Your task to perform on an android device: Add "lg ultragear" to the cart on amazon.com Image 0: 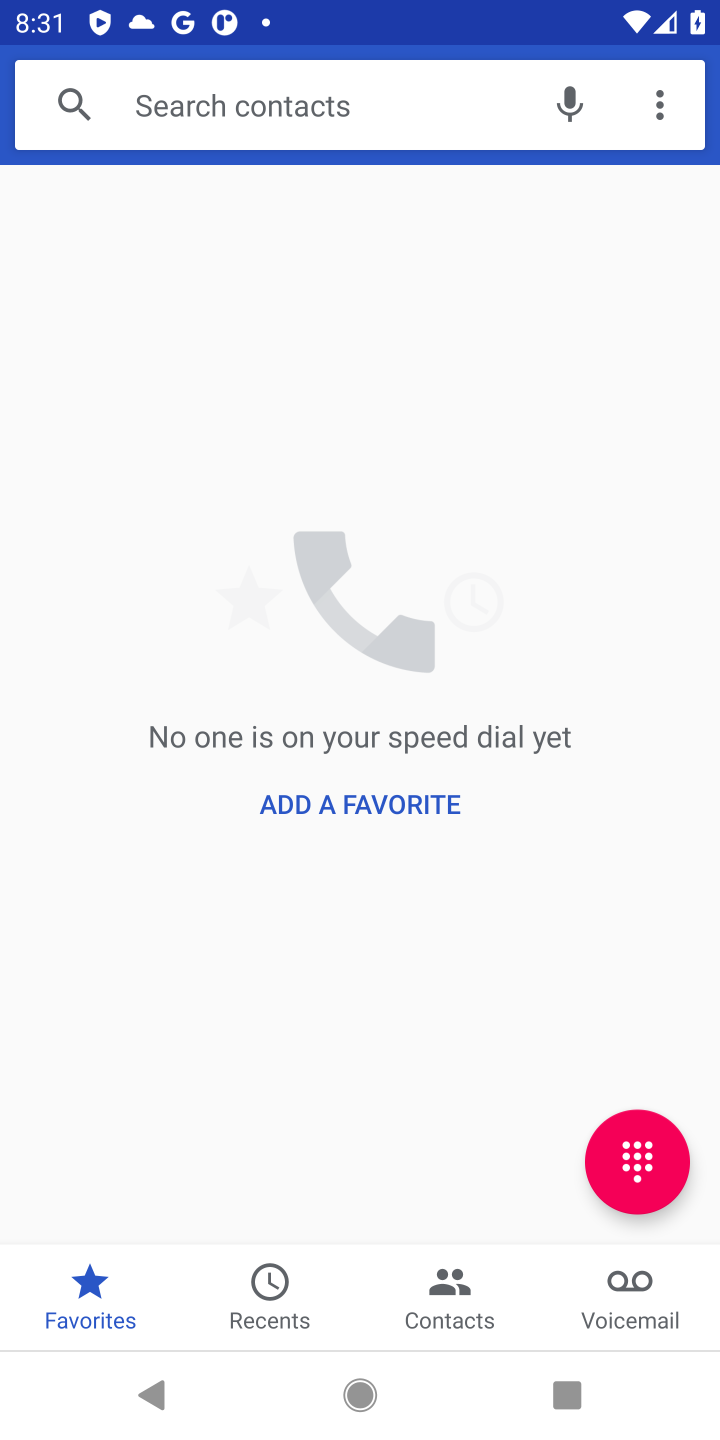
Step 0: press home button
Your task to perform on an android device: Add "lg ultragear" to the cart on amazon.com Image 1: 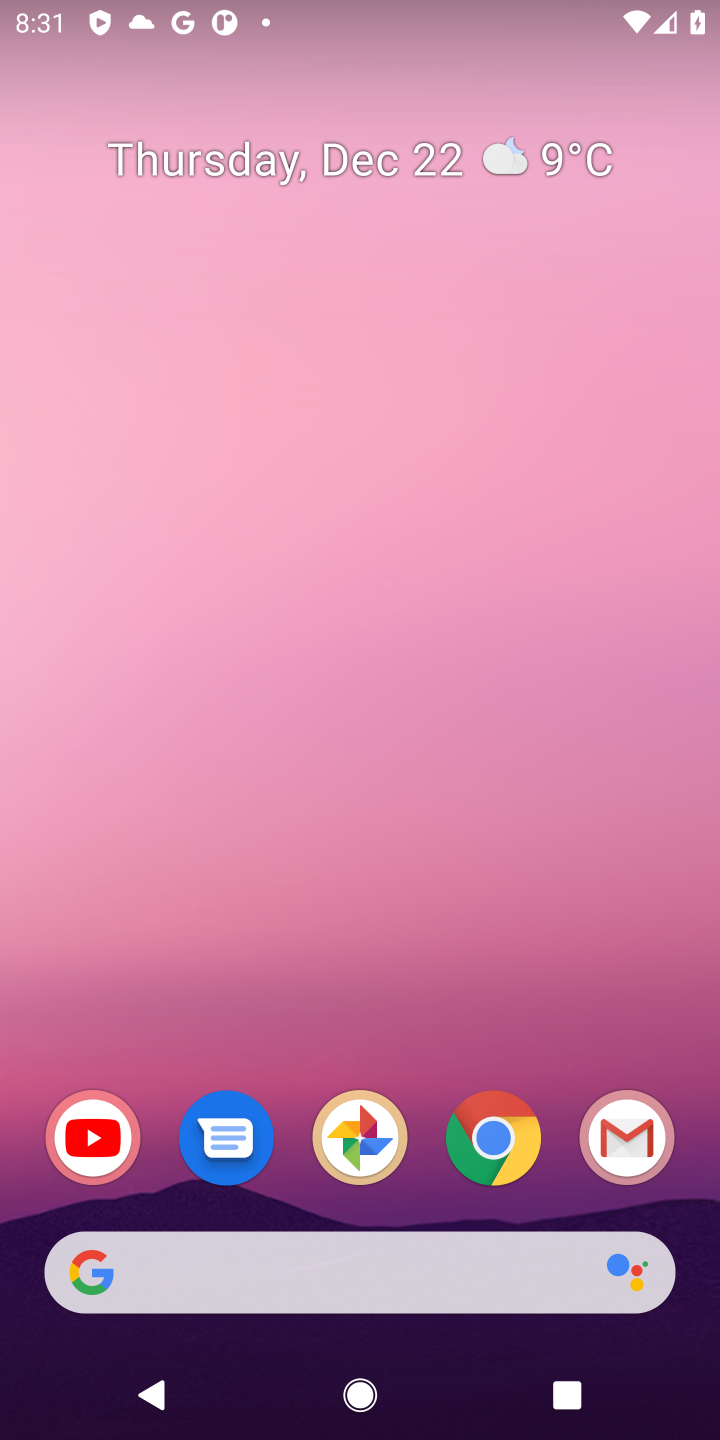
Step 1: click (482, 1160)
Your task to perform on an android device: Add "lg ultragear" to the cart on amazon.com Image 2: 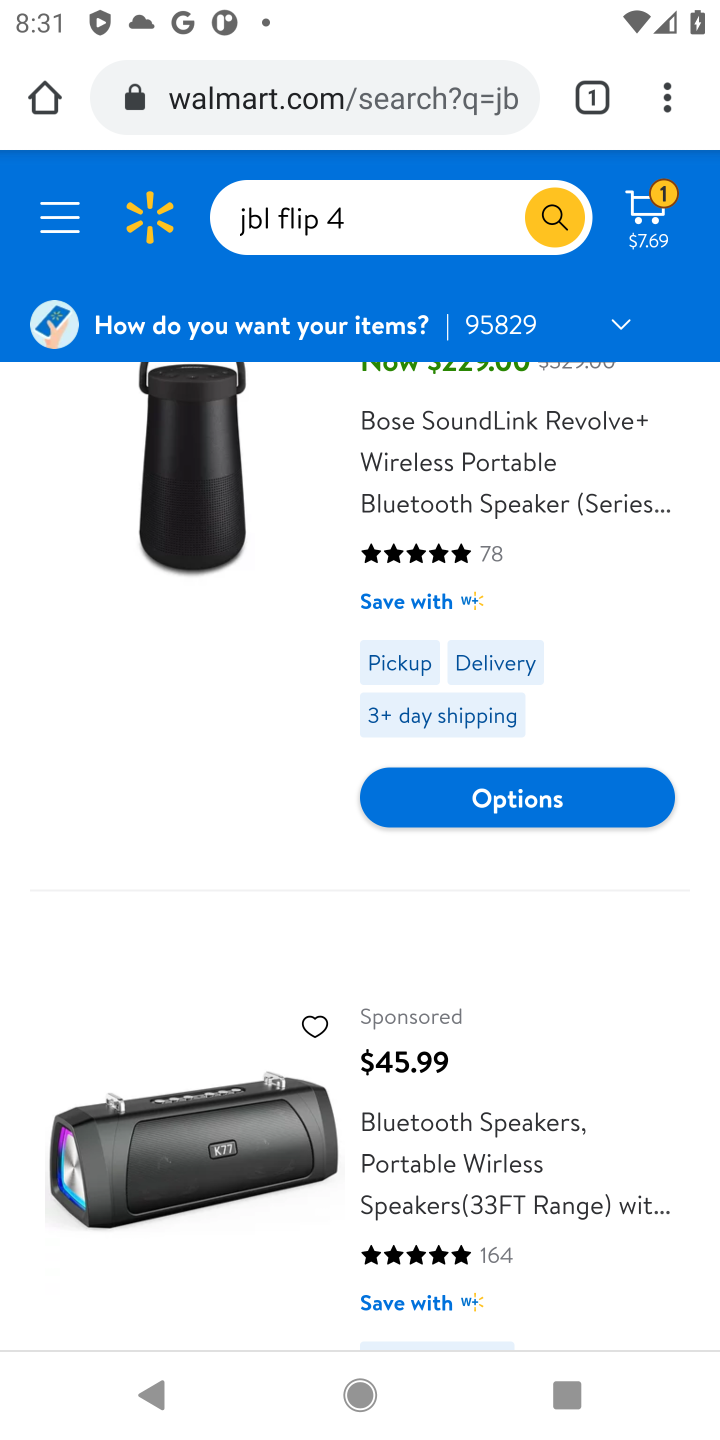
Step 2: click (268, 102)
Your task to perform on an android device: Add "lg ultragear" to the cart on amazon.com Image 3: 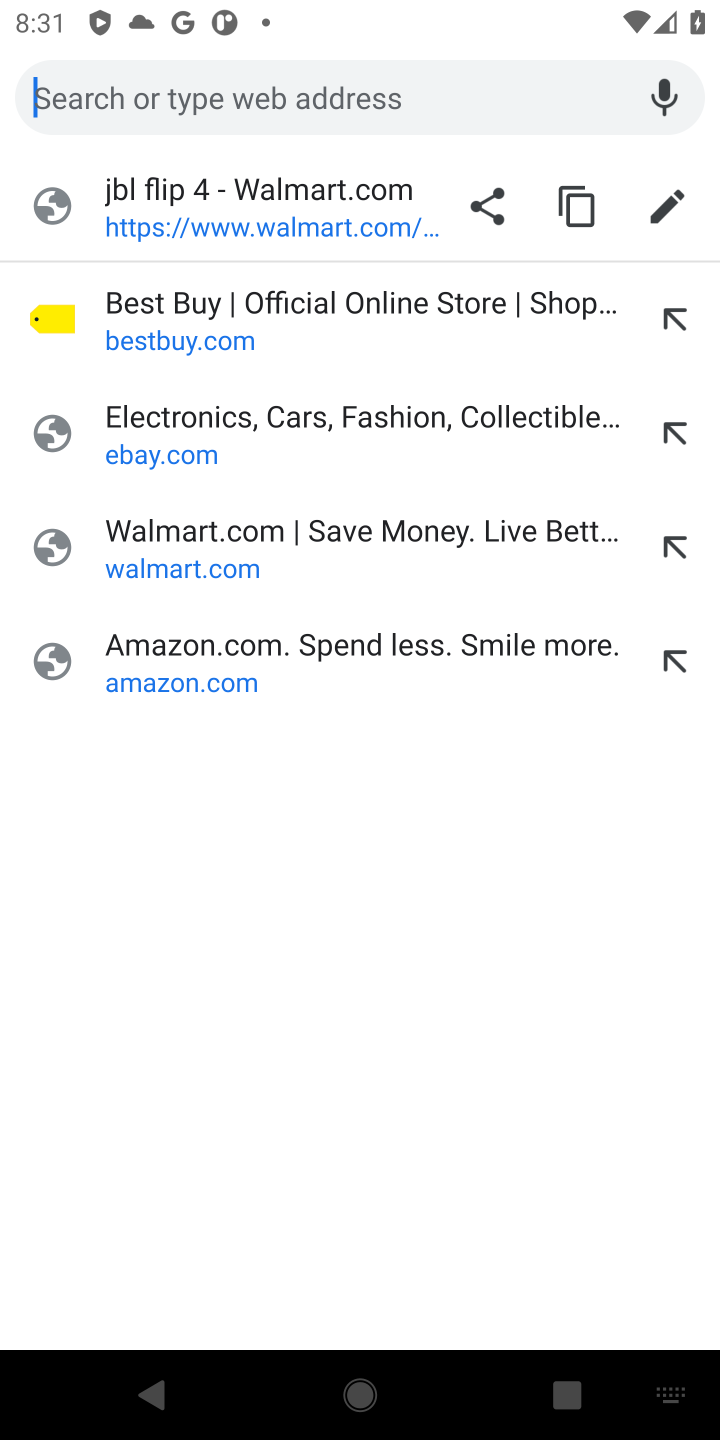
Step 3: type "amazon.com"
Your task to perform on an android device: Add "lg ultragear" to the cart on amazon.com Image 4: 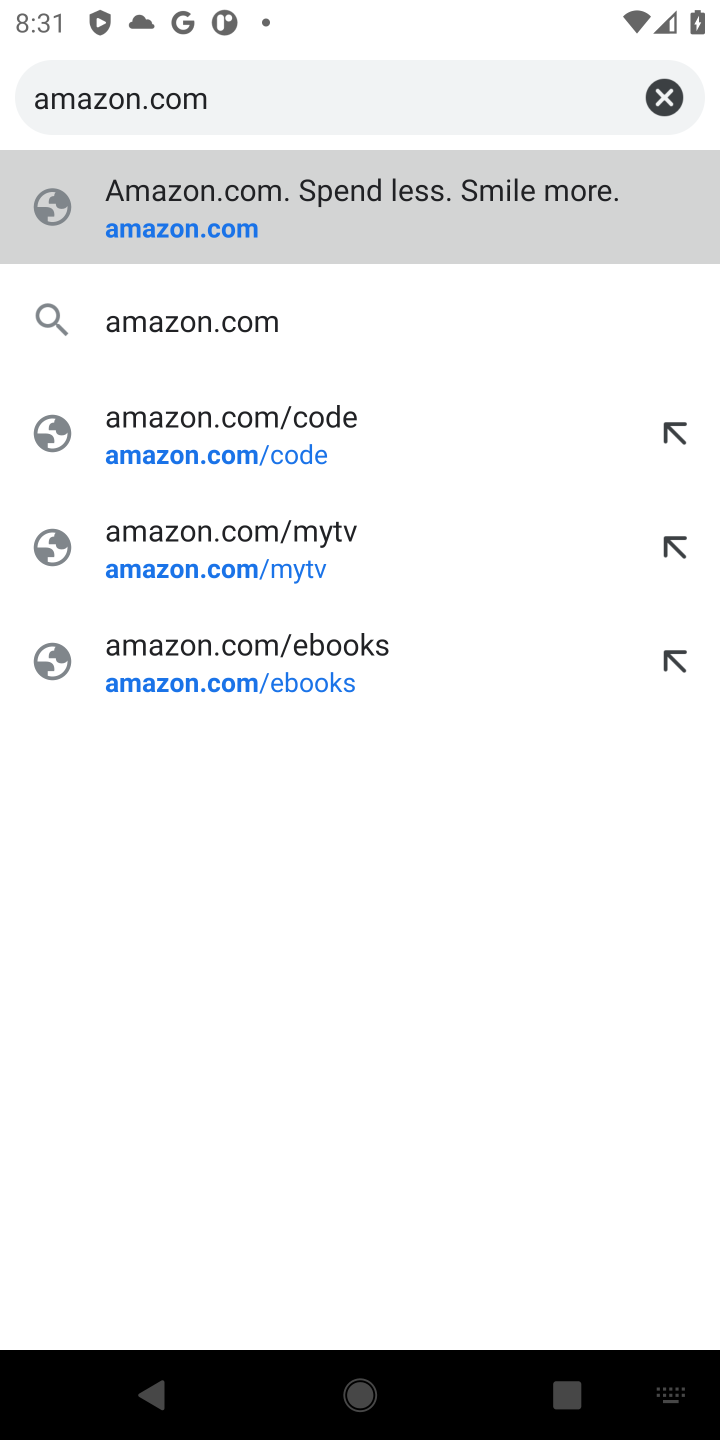
Step 4: press enter
Your task to perform on an android device: Add "lg ultragear" to the cart on amazon.com Image 5: 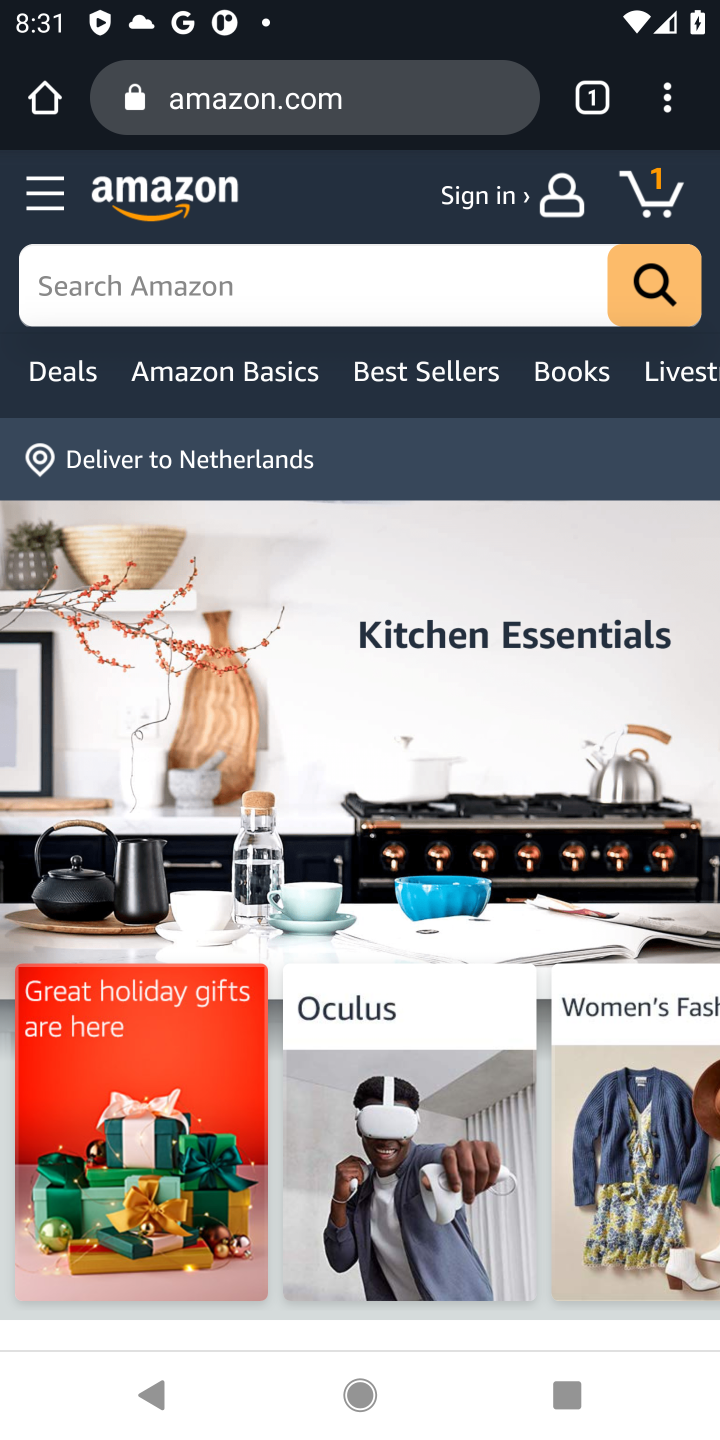
Step 5: click (654, 181)
Your task to perform on an android device: Add "lg ultragear" to the cart on amazon.com Image 6: 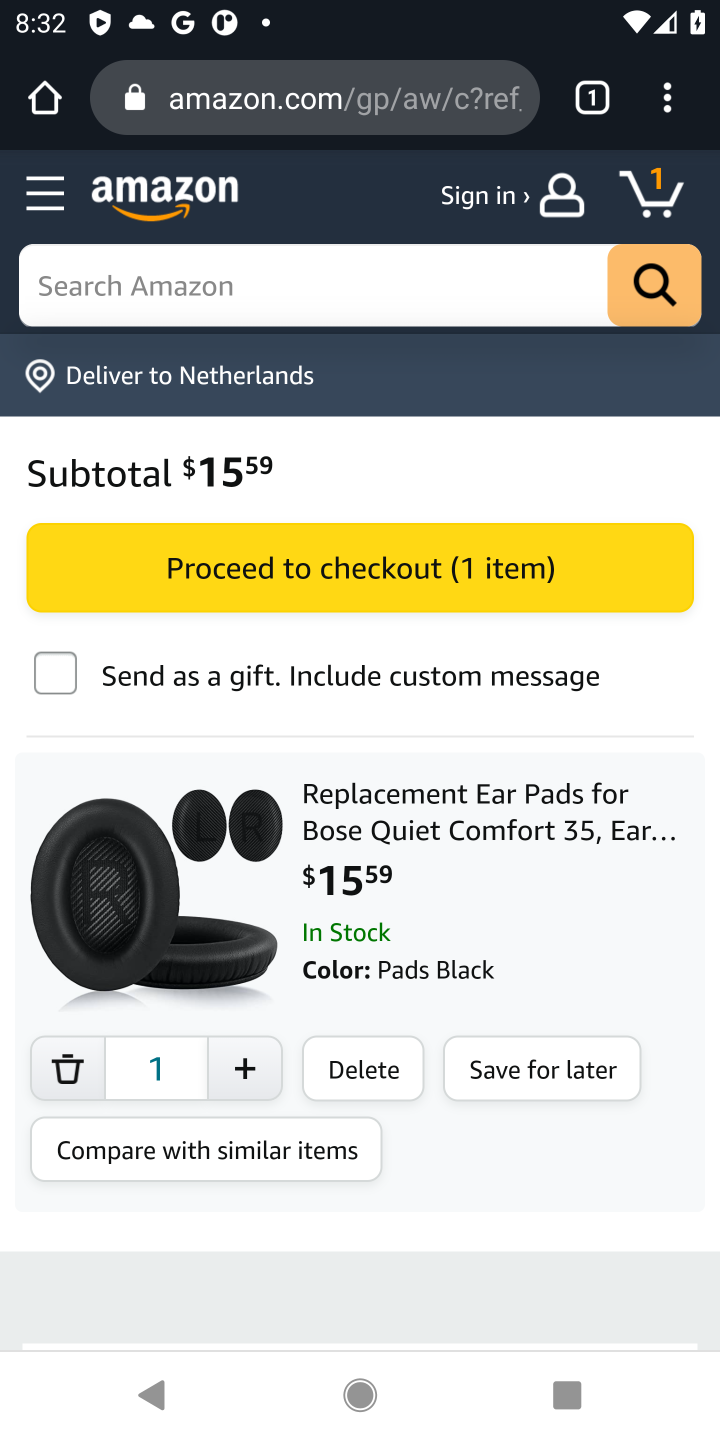
Step 6: click (210, 281)
Your task to perform on an android device: Add "lg ultragear" to the cart on amazon.com Image 7: 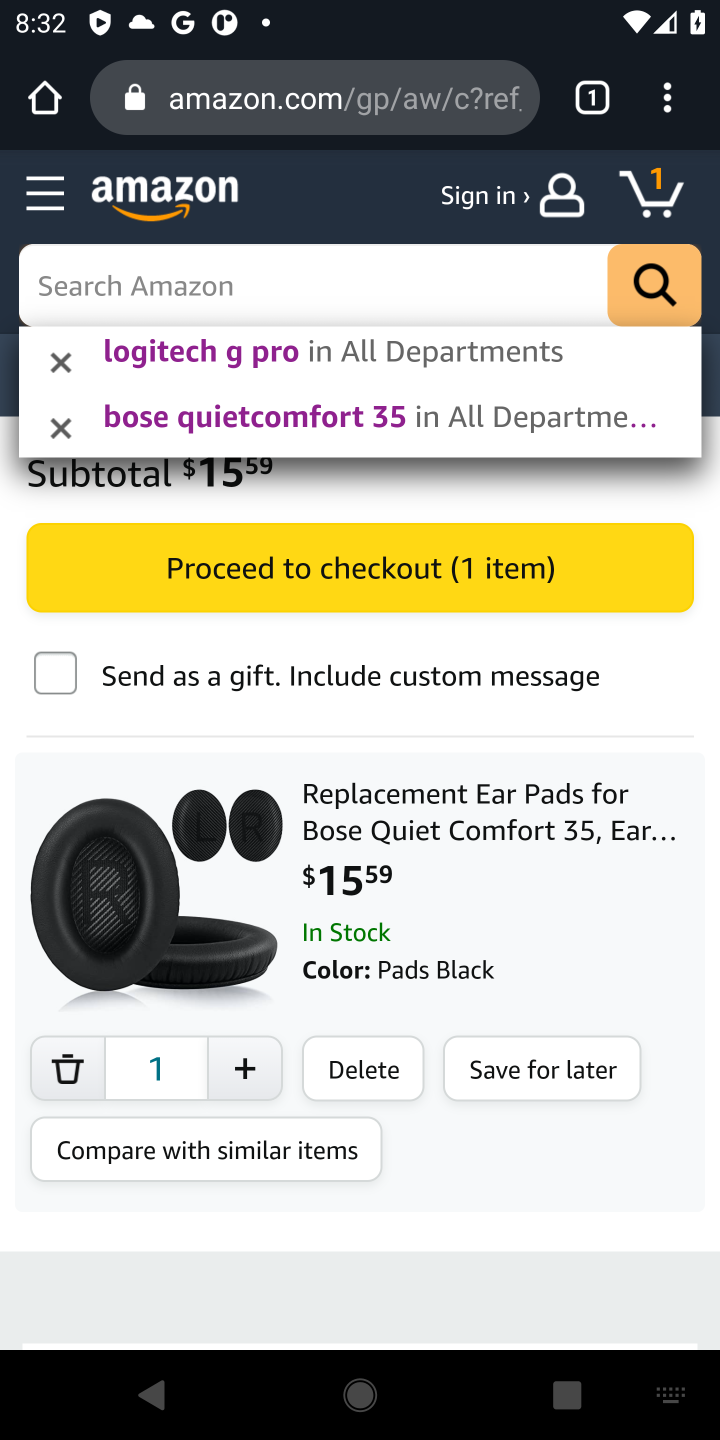
Step 7: type "lg ultragear"
Your task to perform on an android device: Add "lg ultragear" to the cart on amazon.com Image 8: 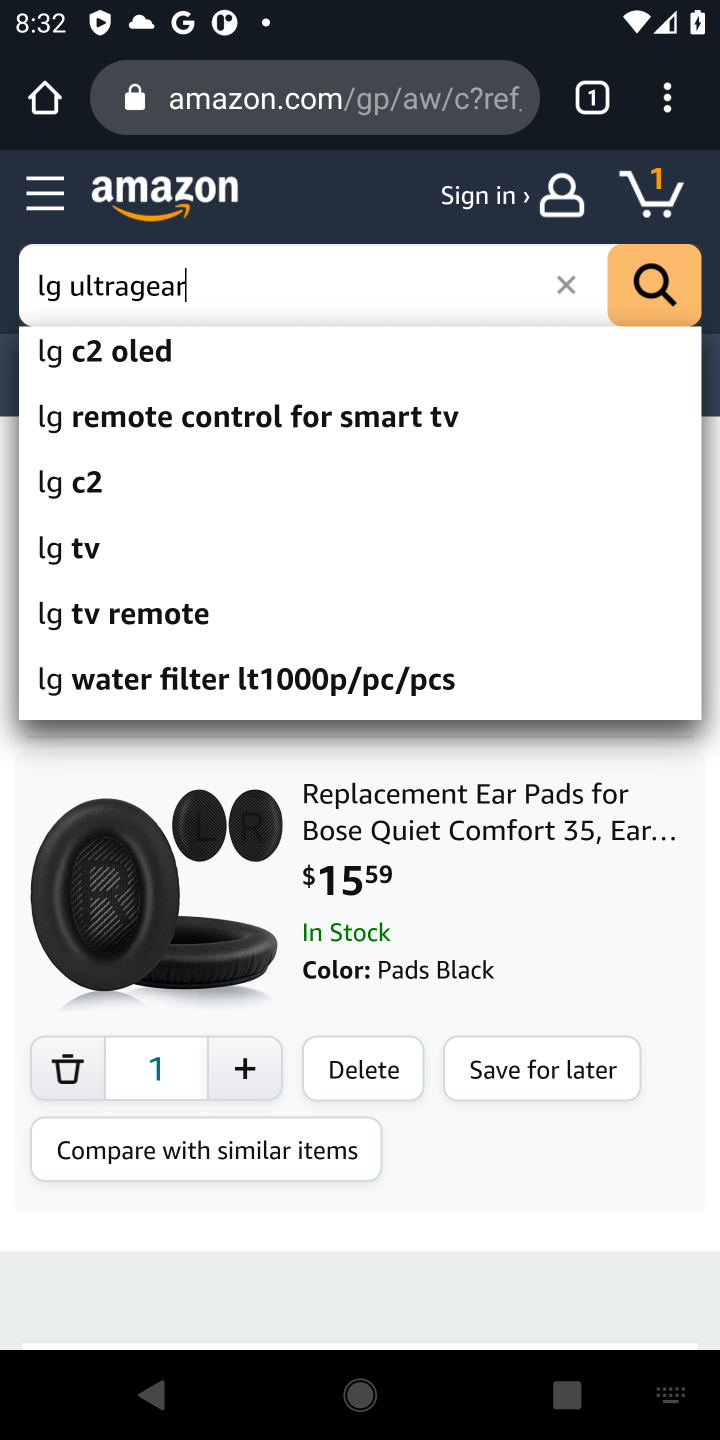
Step 8: press enter
Your task to perform on an android device: Add "lg ultragear" to the cart on amazon.com Image 9: 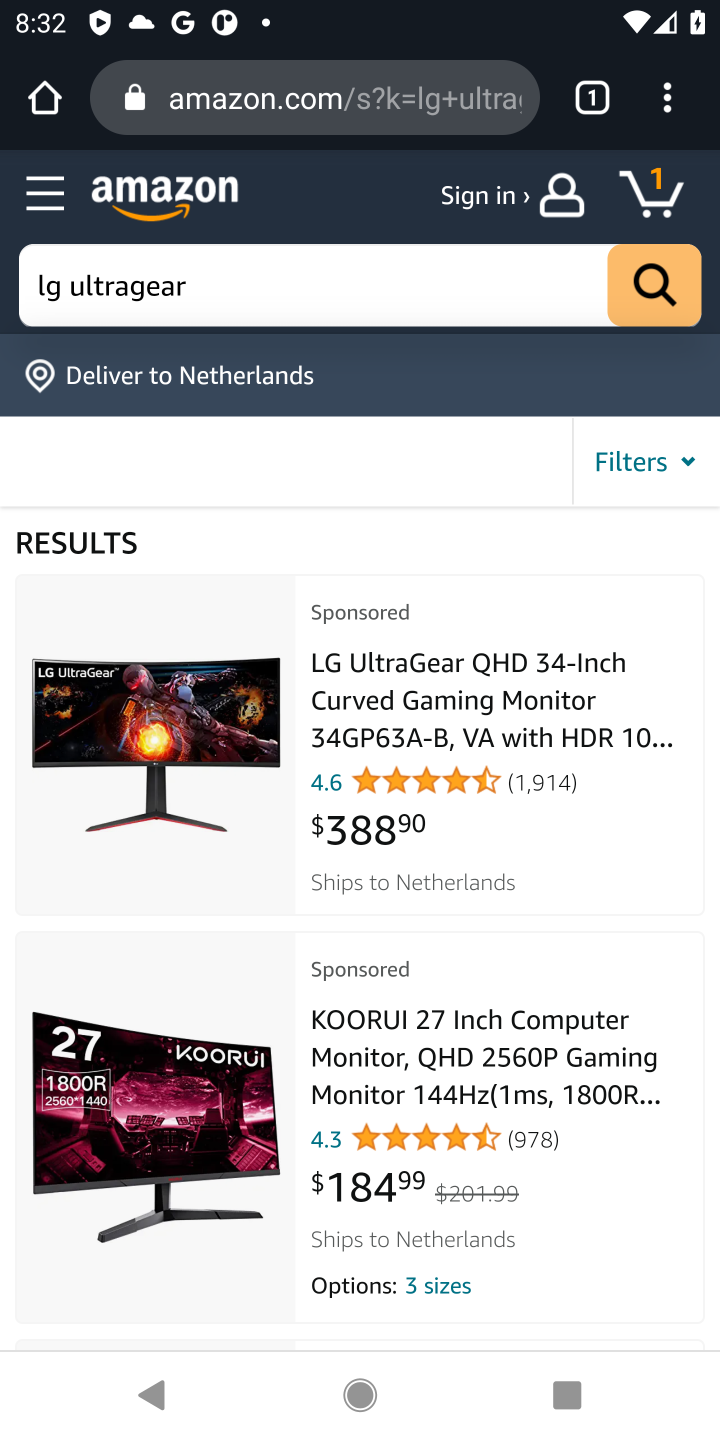
Step 9: drag from (483, 1065) to (480, 618)
Your task to perform on an android device: Add "lg ultragear" to the cart on amazon.com Image 10: 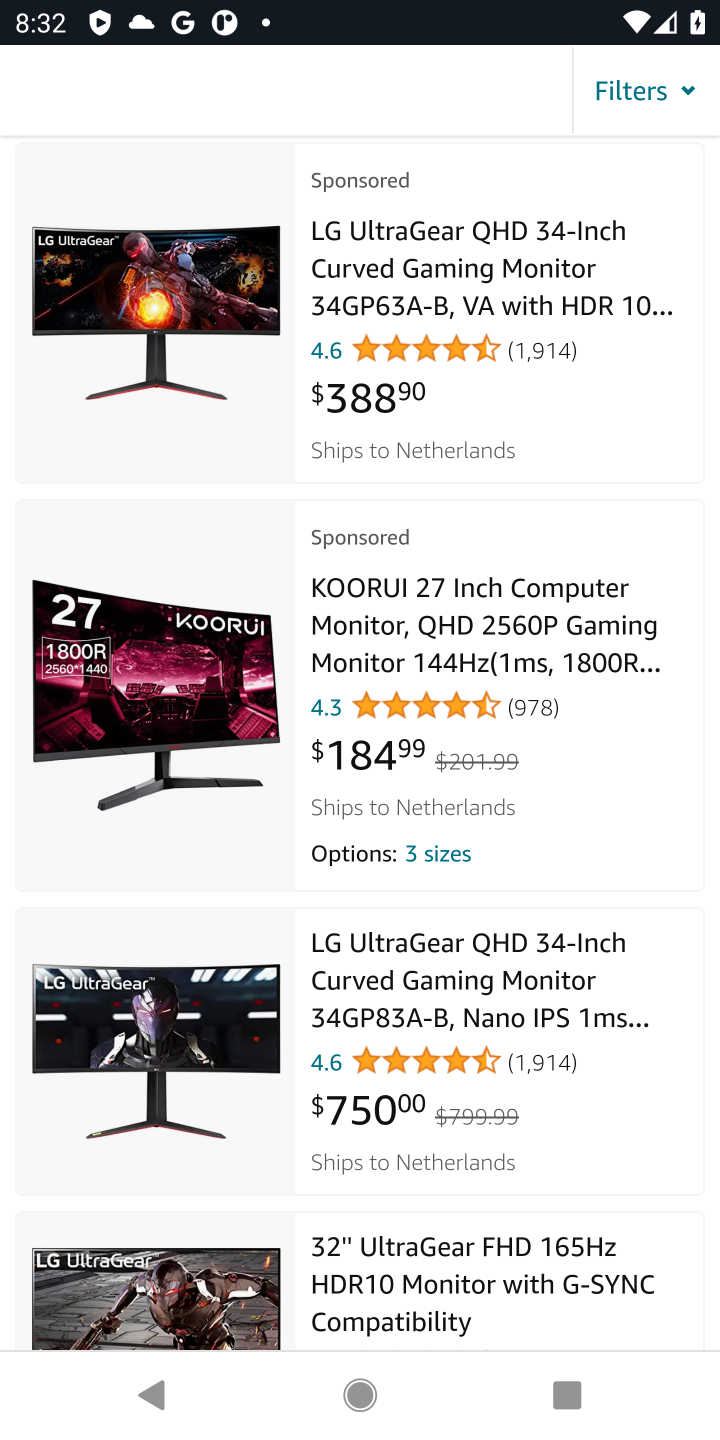
Step 10: click (488, 998)
Your task to perform on an android device: Add "lg ultragear" to the cart on amazon.com Image 11: 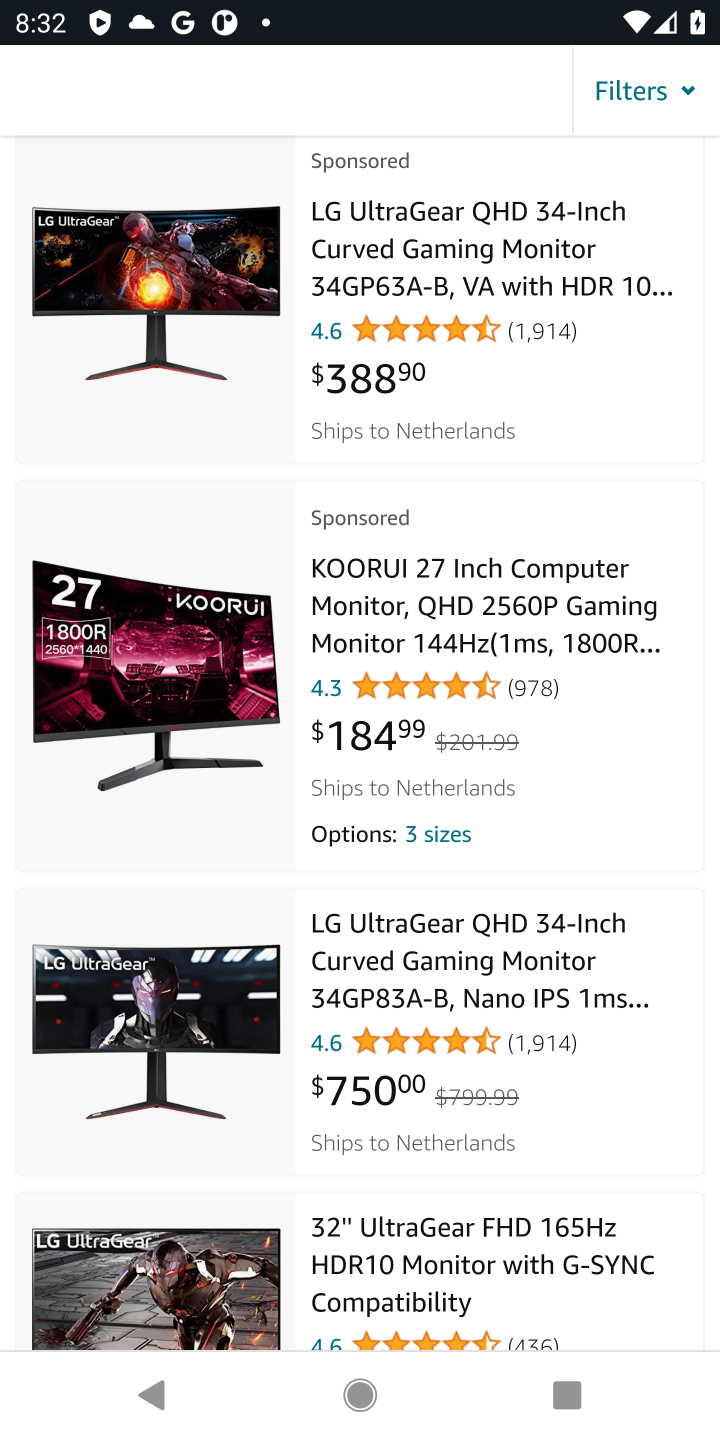
Step 11: click (468, 981)
Your task to perform on an android device: Add "lg ultragear" to the cart on amazon.com Image 12: 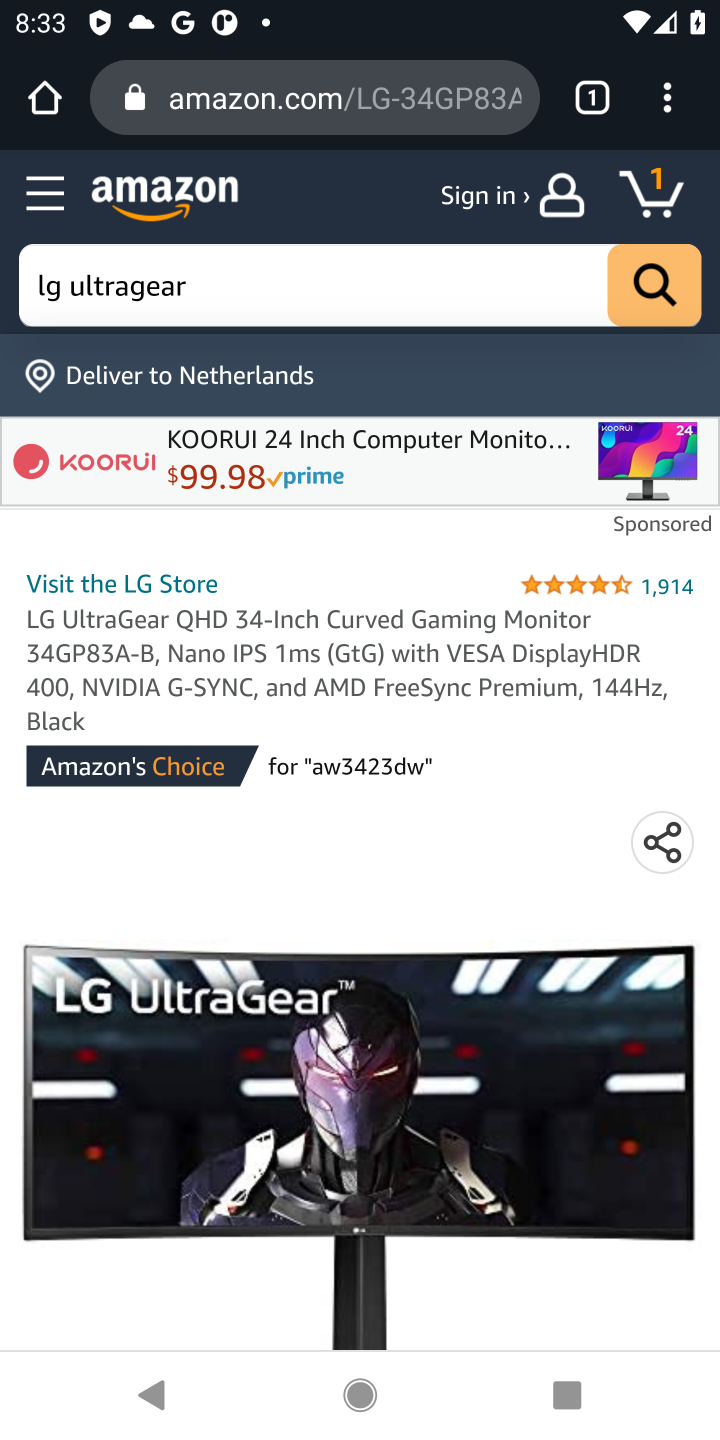
Step 12: drag from (440, 896) to (411, 294)
Your task to perform on an android device: Add "lg ultragear" to the cart on amazon.com Image 13: 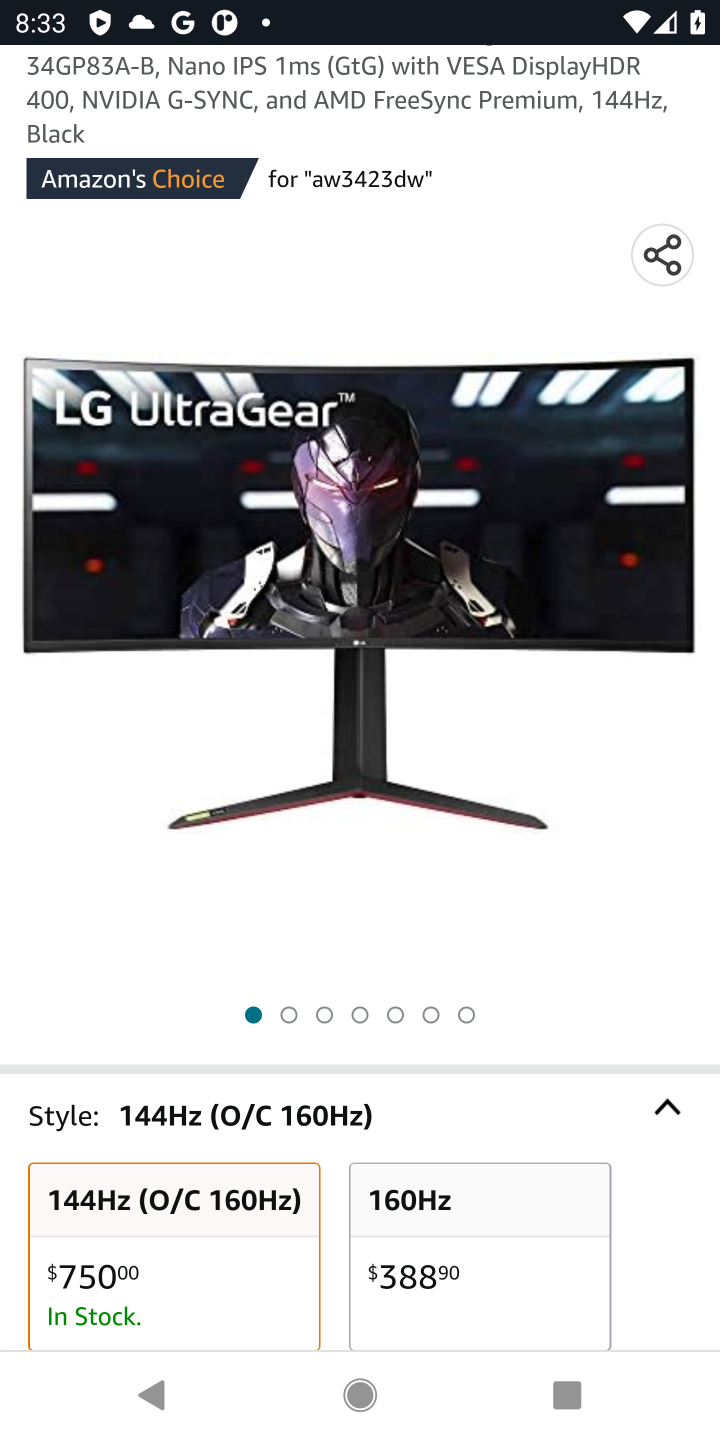
Step 13: drag from (428, 1002) to (260, 427)
Your task to perform on an android device: Add "lg ultragear" to the cart on amazon.com Image 14: 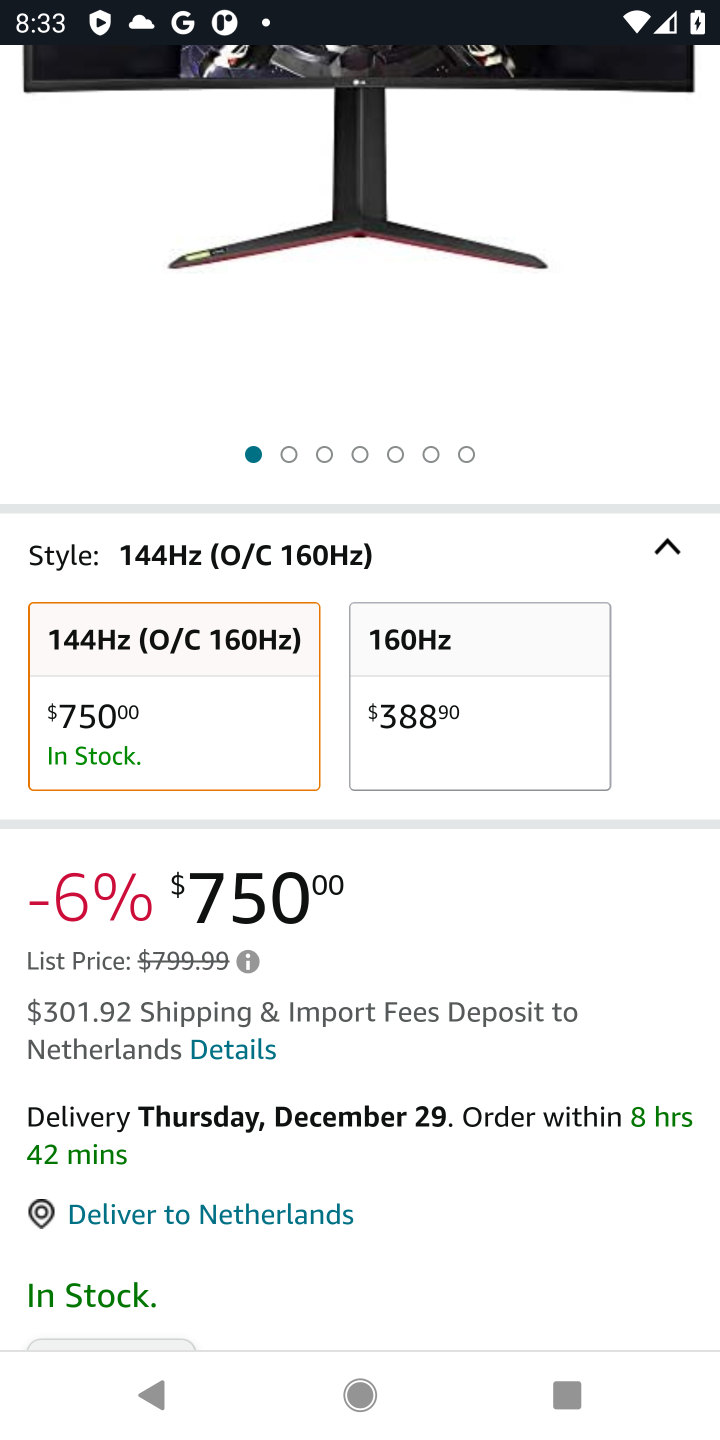
Step 14: drag from (464, 1007) to (481, 371)
Your task to perform on an android device: Add "lg ultragear" to the cart on amazon.com Image 15: 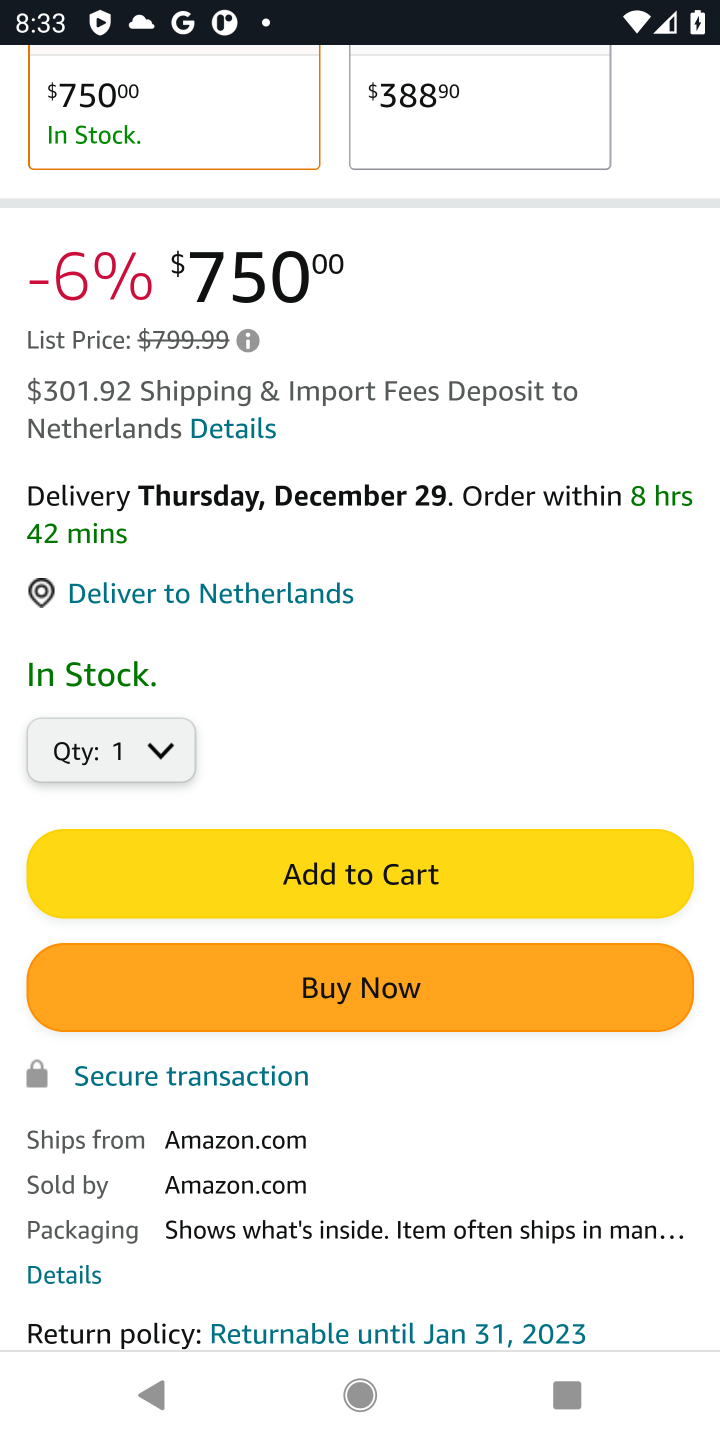
Step 15: click (360, 868)
Your task to perform on an android device: Add "lg ultragear" to the cart on amazon.com Image 16: 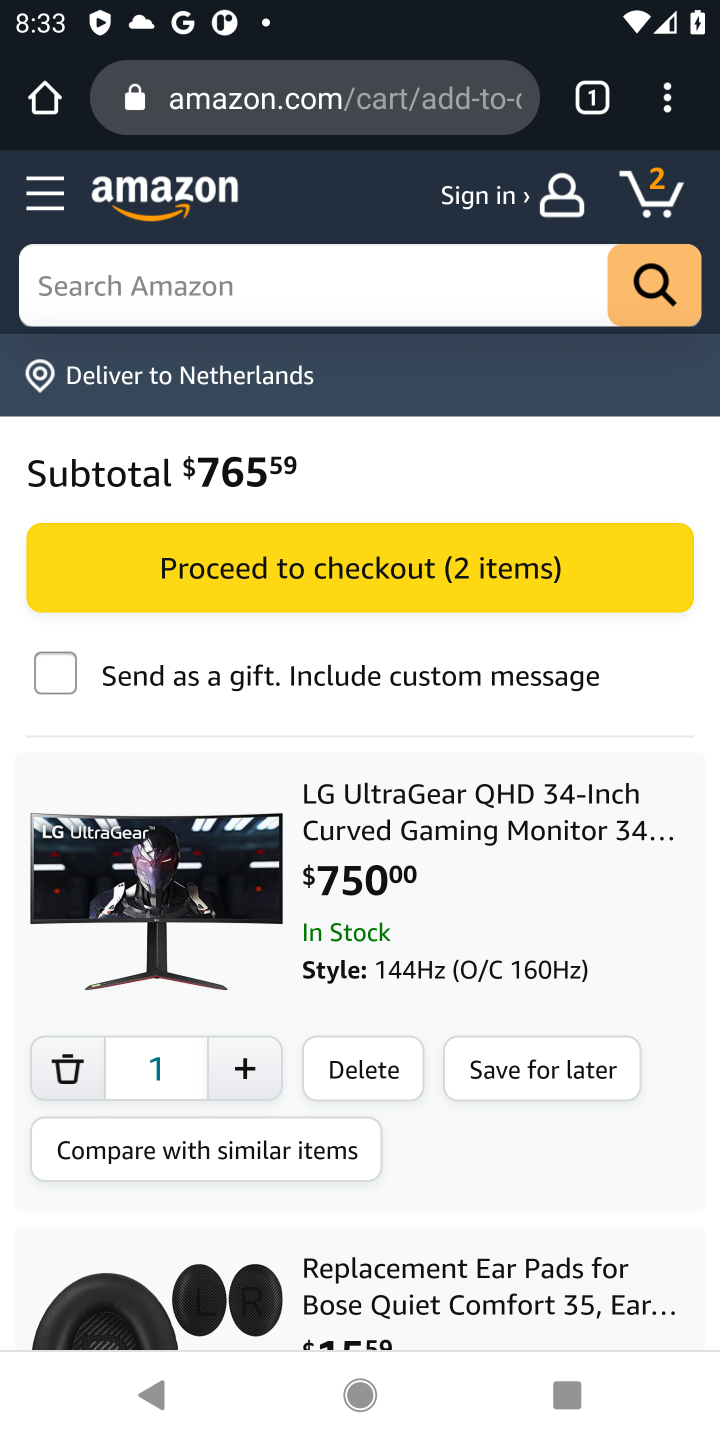
Step 16: task complete